Your task to perform on an android device: install app "Pandora - Music & Podcasts" Image 0: 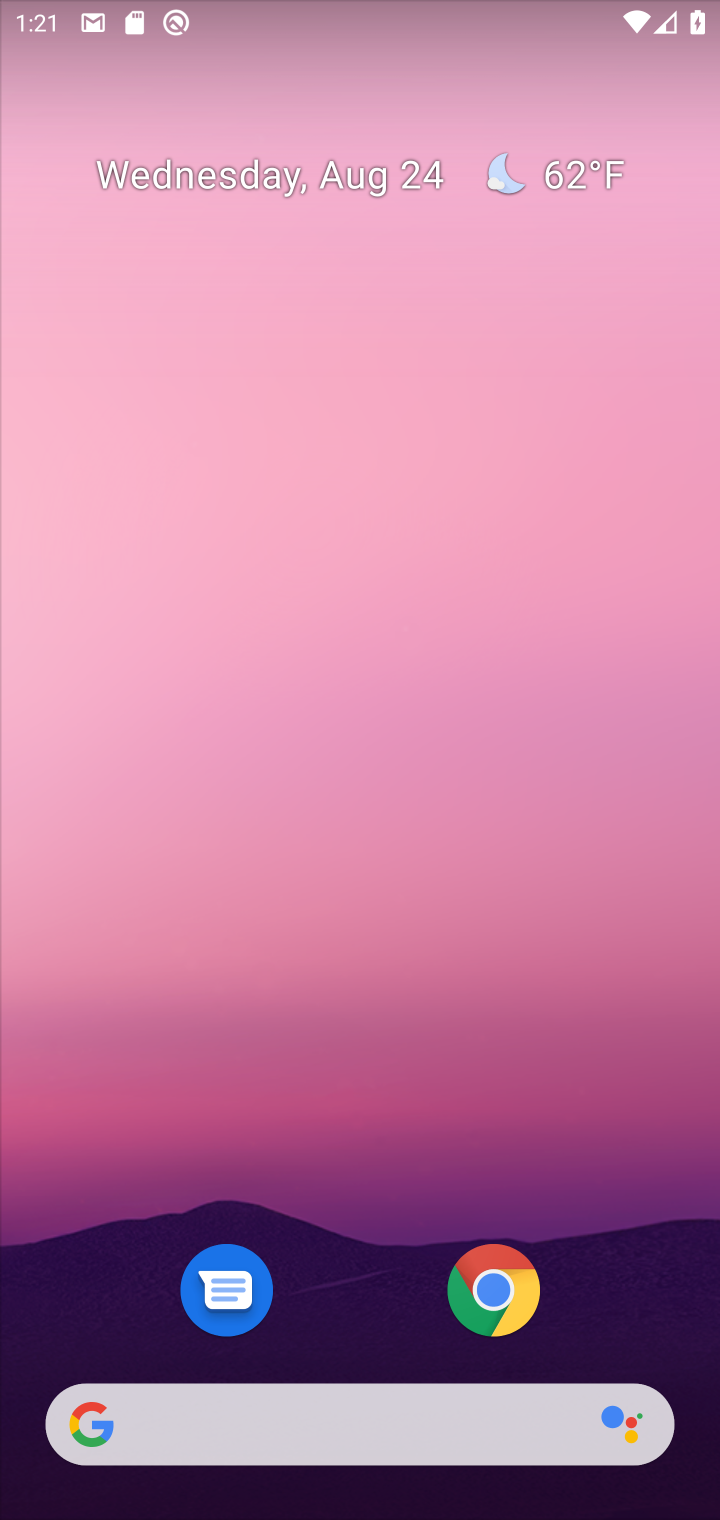
Step 0: drag from (368, 844) to (377, 237)
Your task to perform on an android device: install app "Pandora - Music & Podcasts" Image 1: 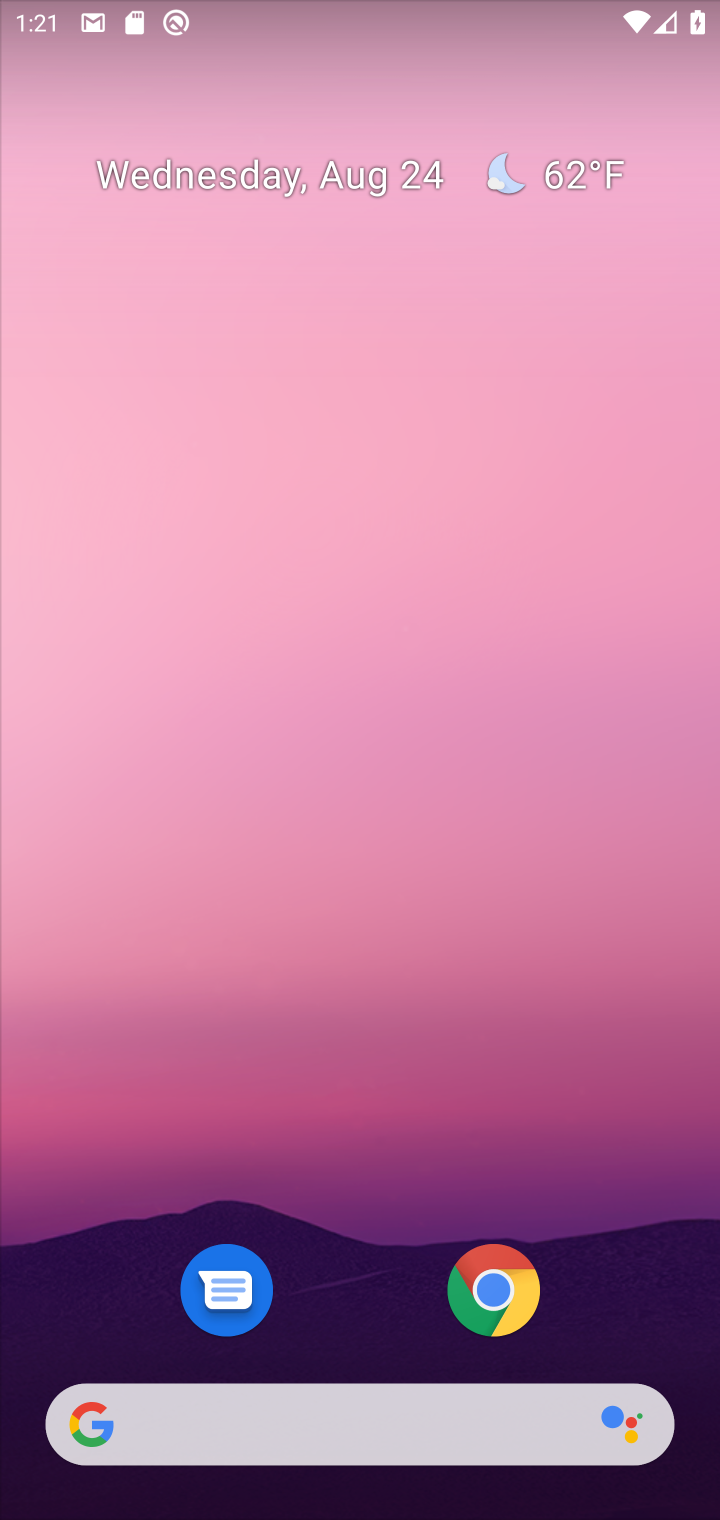
Step 1: drag from (336, 1257) to (488, 137)
Your task to perform on an android device: install app "Pandora - Music & Podcasts" Image 2: 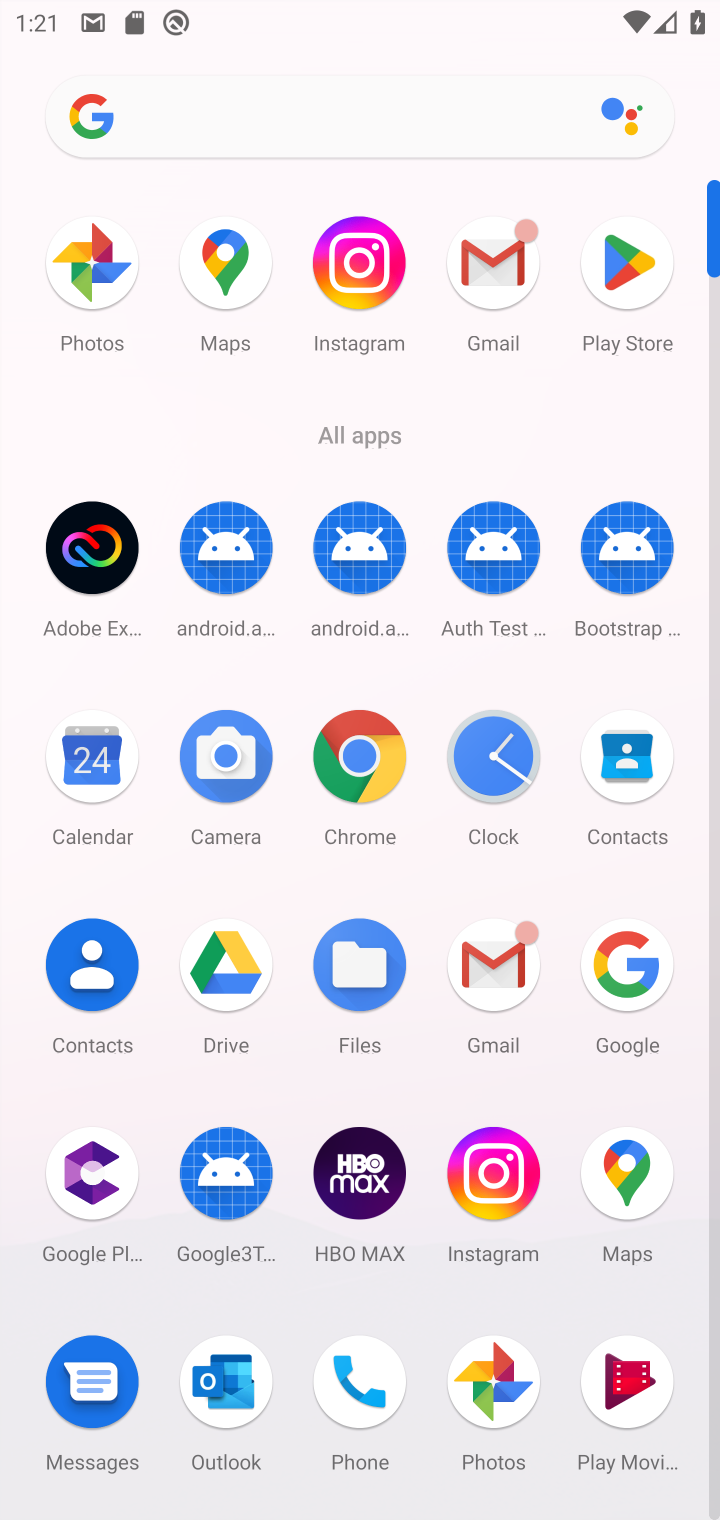
Step 2: click (627, 272)
Your task to perform on an android device: install app "Pandora - Music & Podcasts" Image 3: 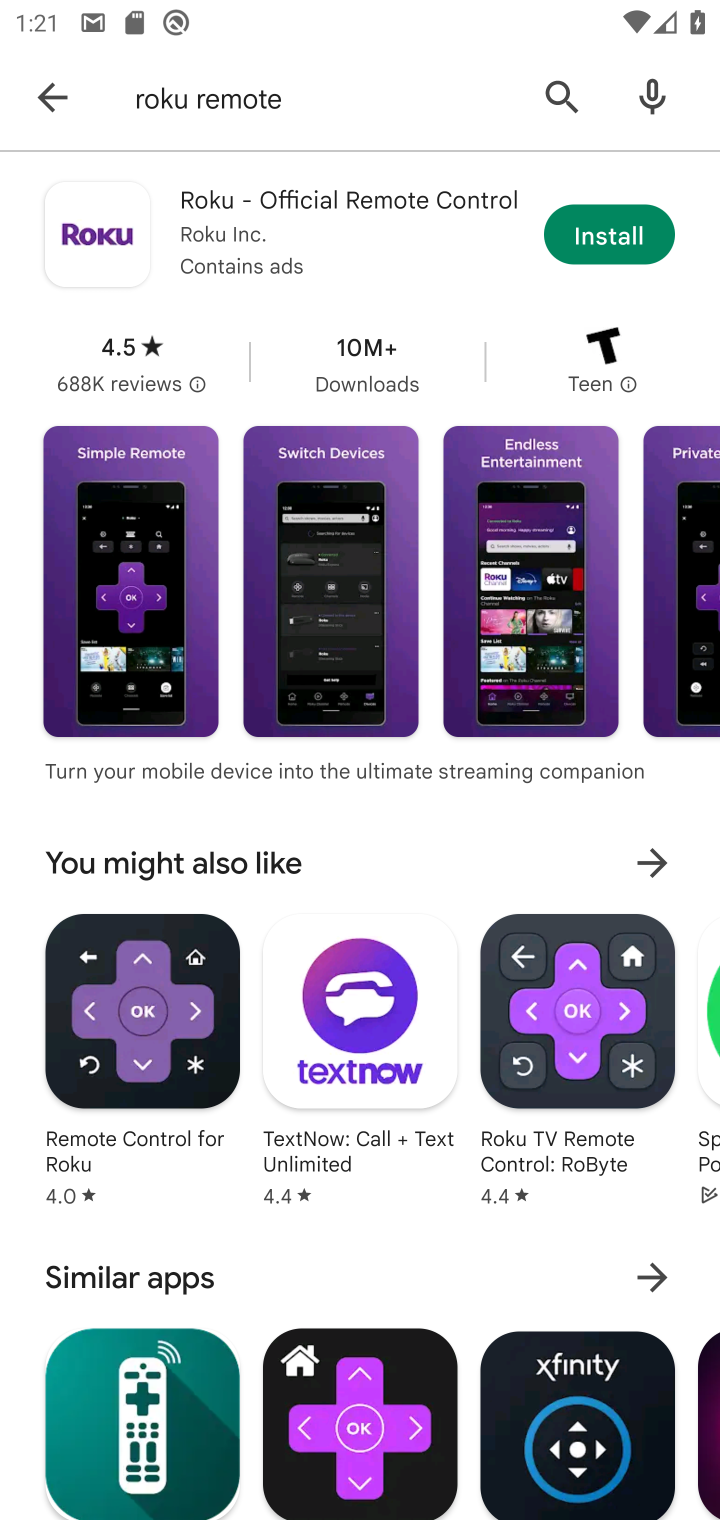
Step 3: click (60, 100)
Your task to perform on an android device: install app "Pandora - Music & Podcasts" Image 4: 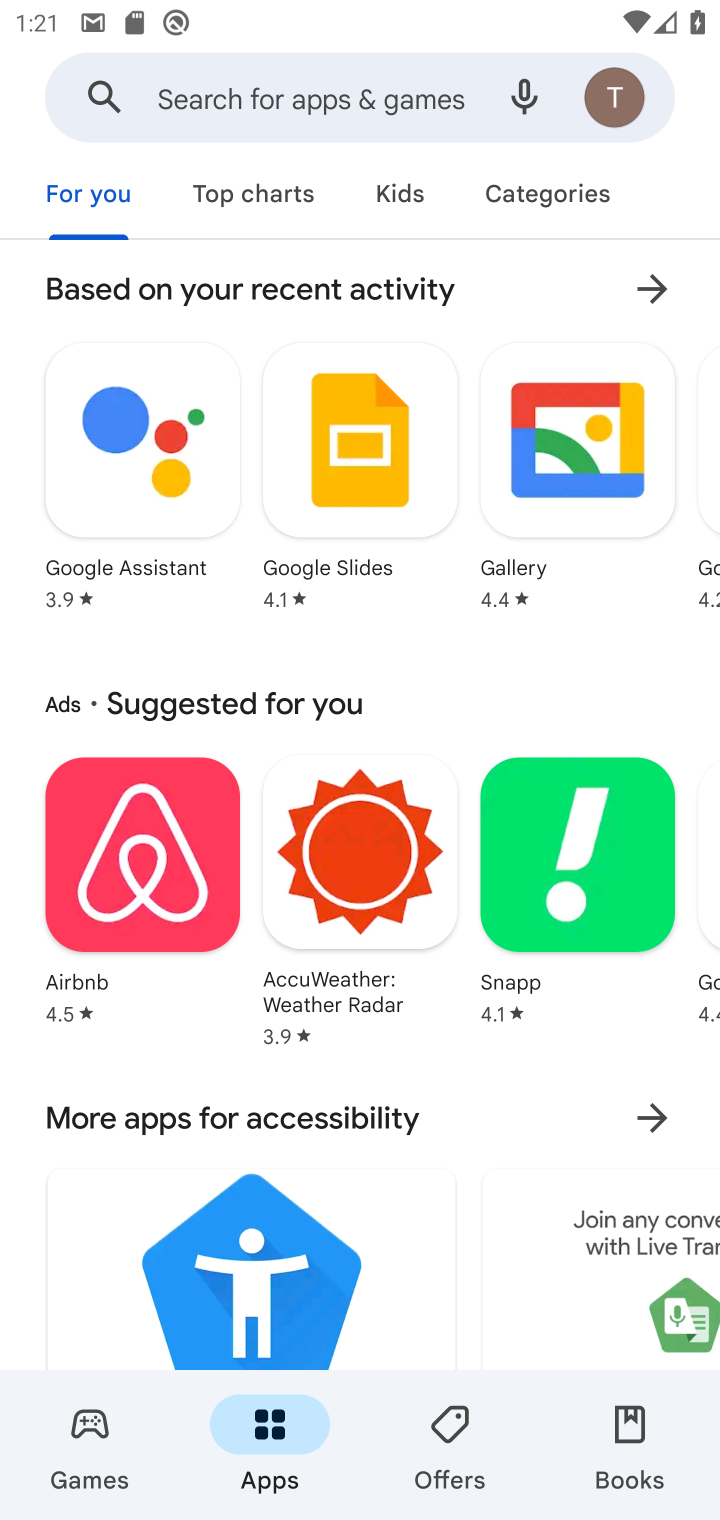
Step 4: click (288, 82)
Your task to perform on an android device: install app "Pandora - Music & Podcasts" Image 5: 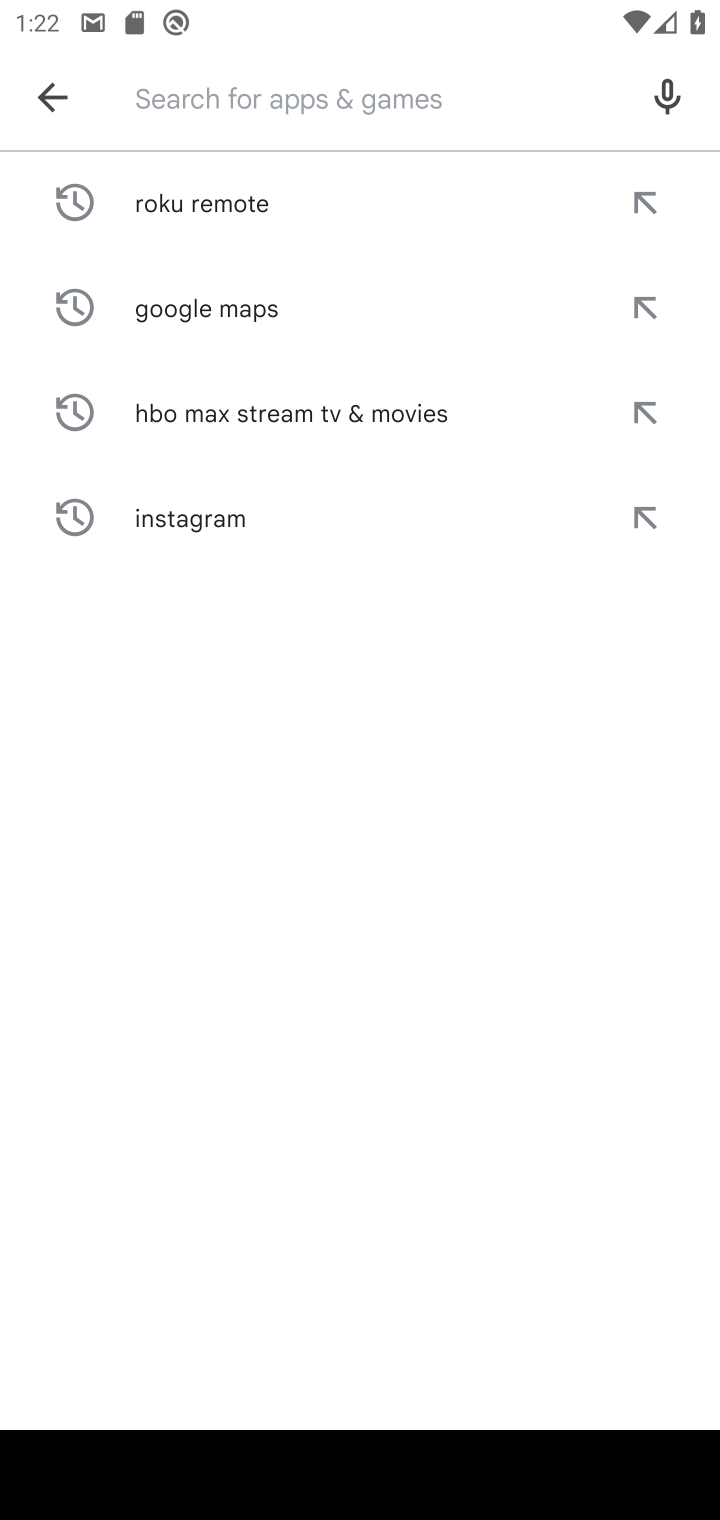
Step 5: type "Pandora"
Your task to perform on an android device: install app "Pandora - Music & Podcasts" Image 6: 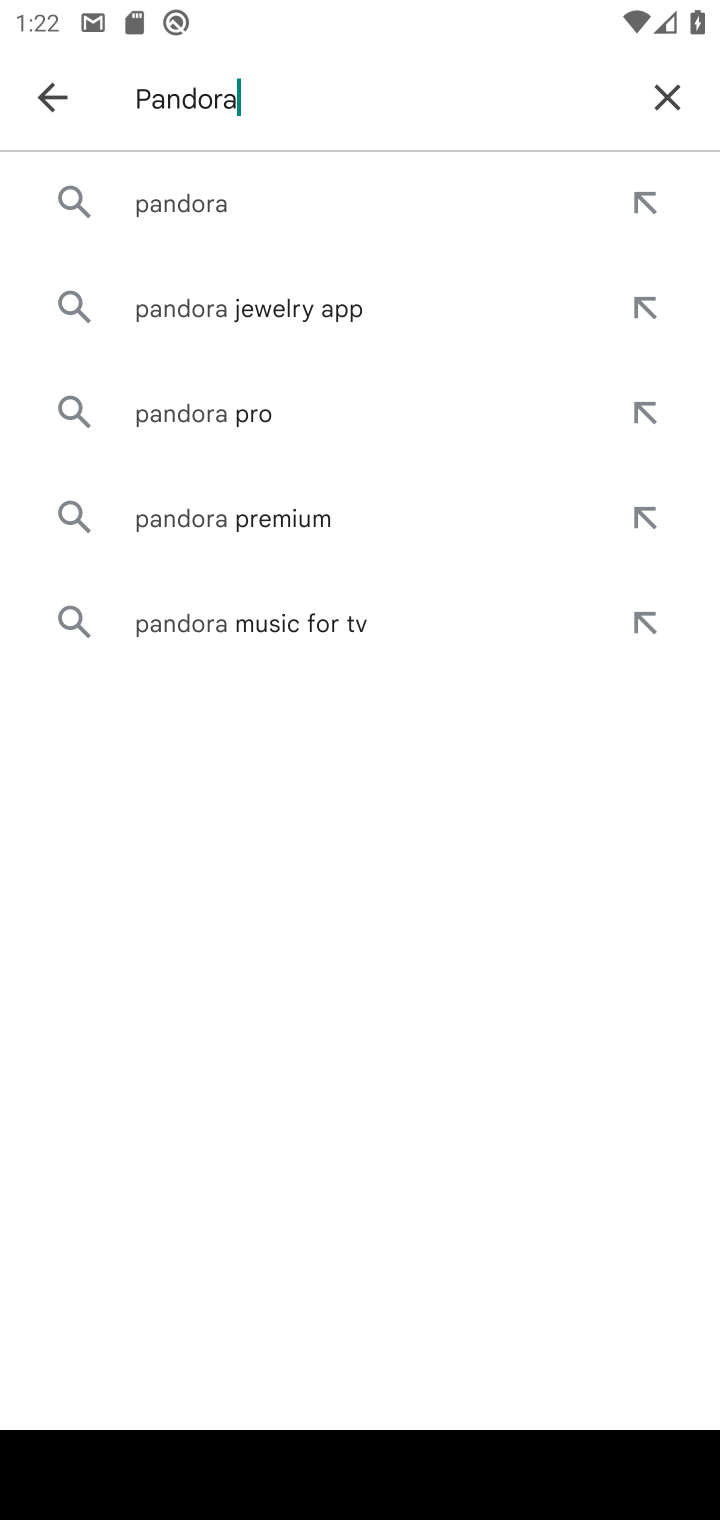
Step 6: click (180, 209)
Your task to perform on an android device: install app "Pandora - Music & Podcasts" Image 7: 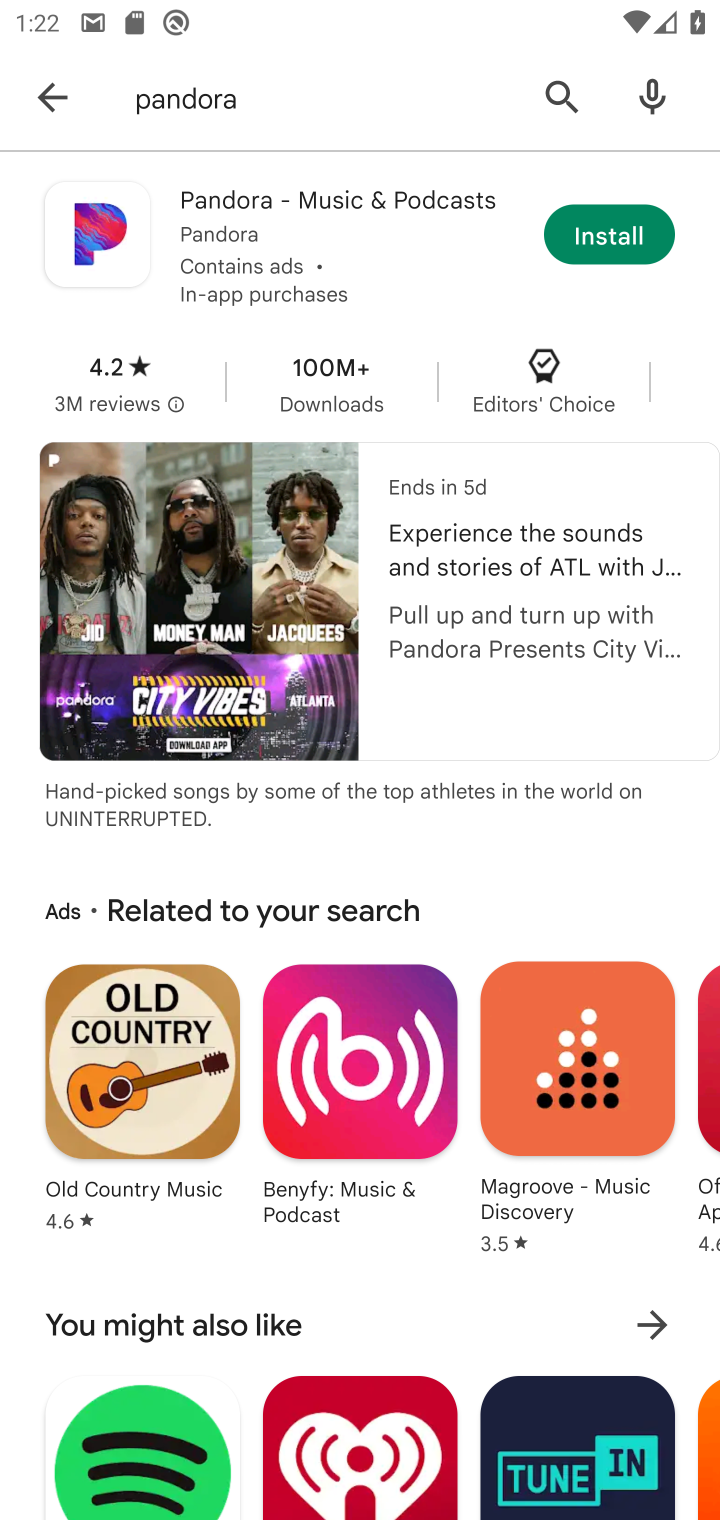
Step 7: click (606, 244)
Your task to perform on an android device: install app "Pandora - Music & Podcasts" Image 8: 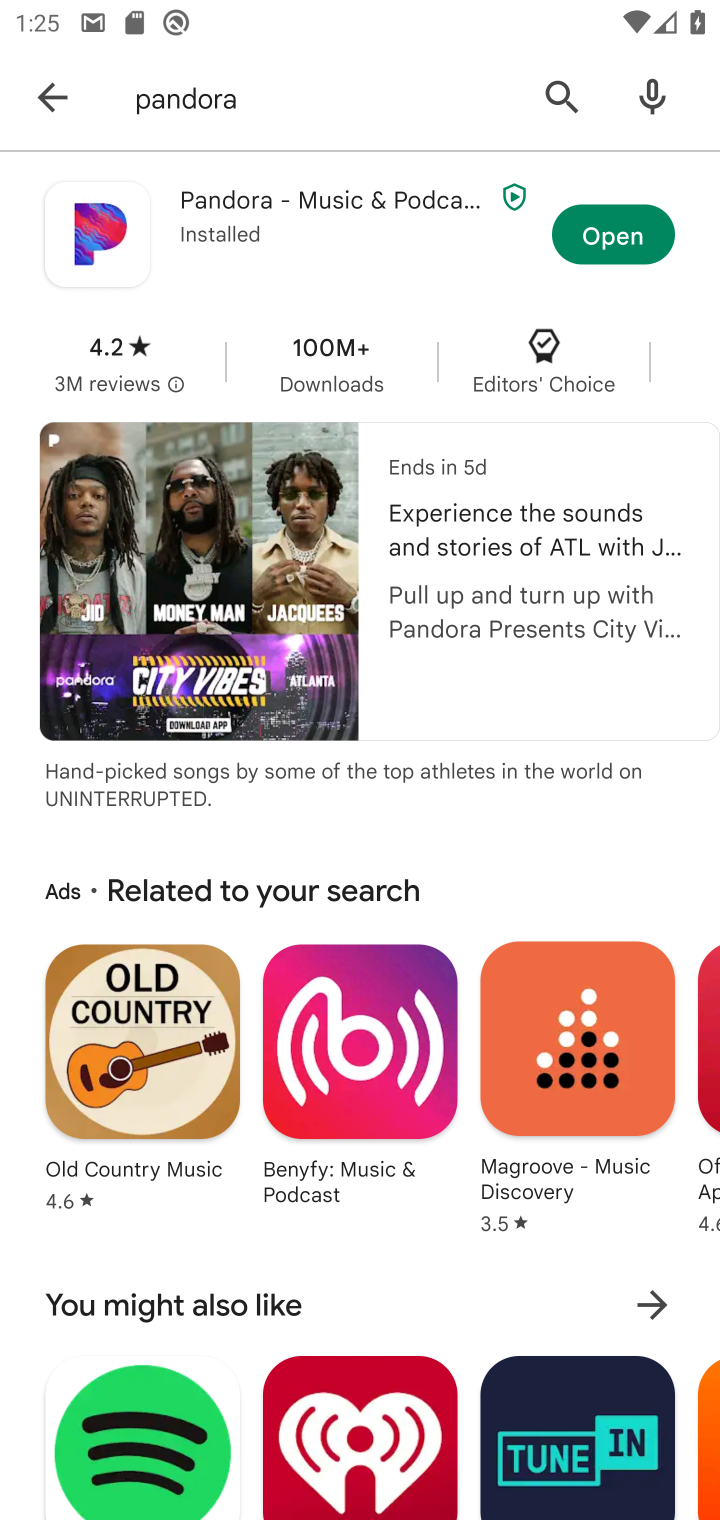
Step 8: task complete